Your task to perform on an android device: Is it going to rain today? Image 0: 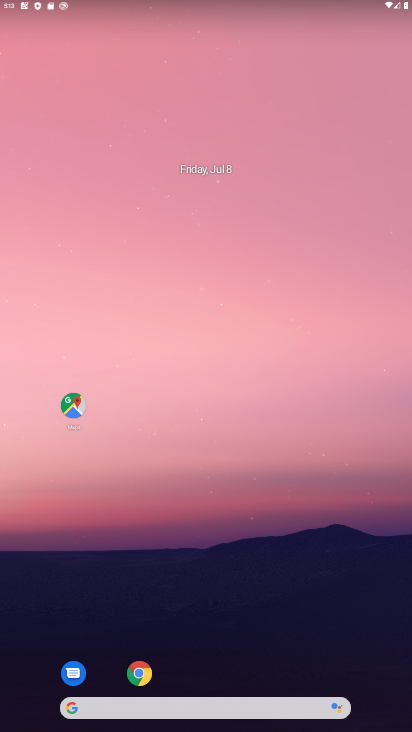
Step 0: drag from (152, 393) to (182, 93)
Your task to perform on an android device: Is it going to rain today? Image 1: 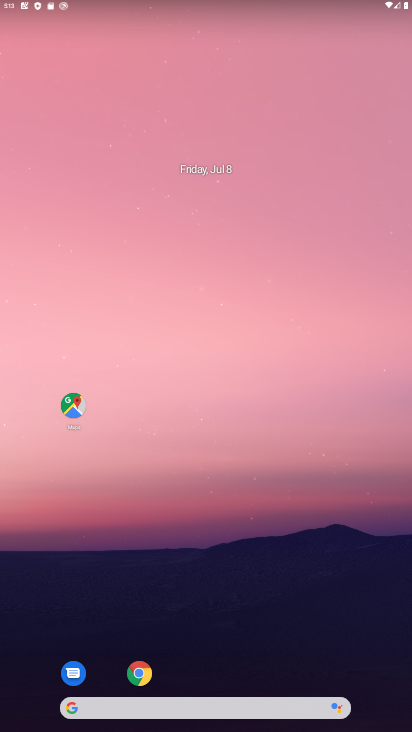
Step 1: drag from (176, 448) to (61, 479)
Your task to perform on an android device: Is it going to rain today? Image 2: 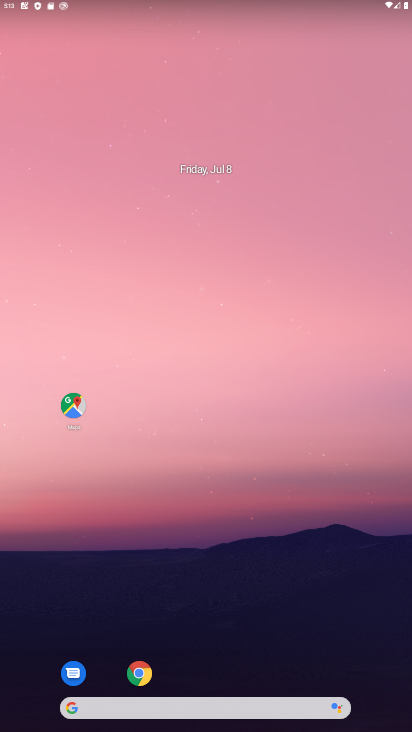
Step 2: drag from (178, 58) to (157, 16)
Your task to perform on an android device: Is it going to rain today? Image 3: 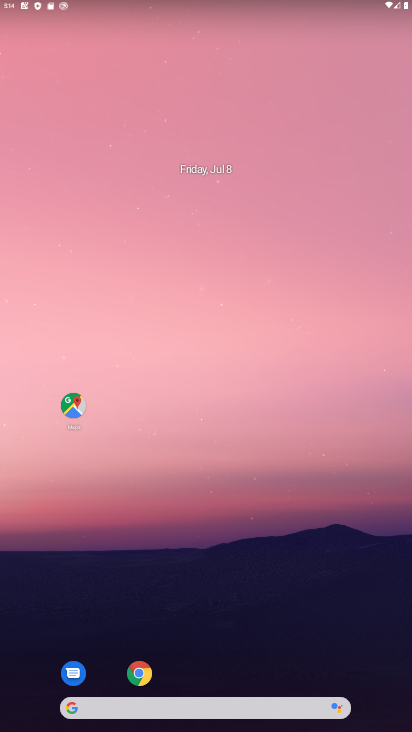
Step 3: drag from (211, 320) to (92, 100)
Your task to perform on an android device: Is it going to rain today? Image 4: 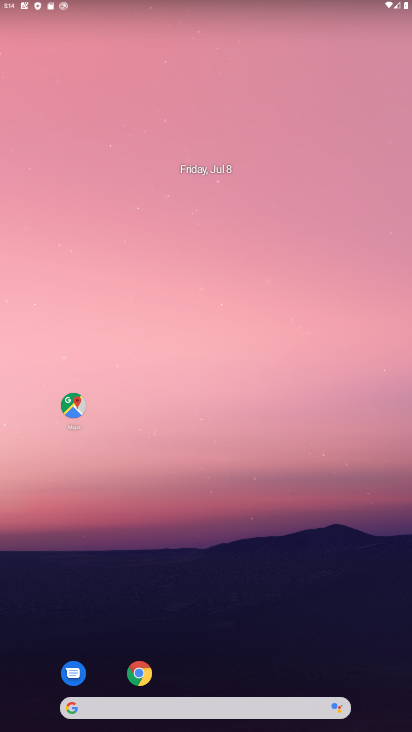
Step 4: drag from (216, 658) to (202, 178)
Your task to perform on an android device: Is it going to rain today? Image 5: 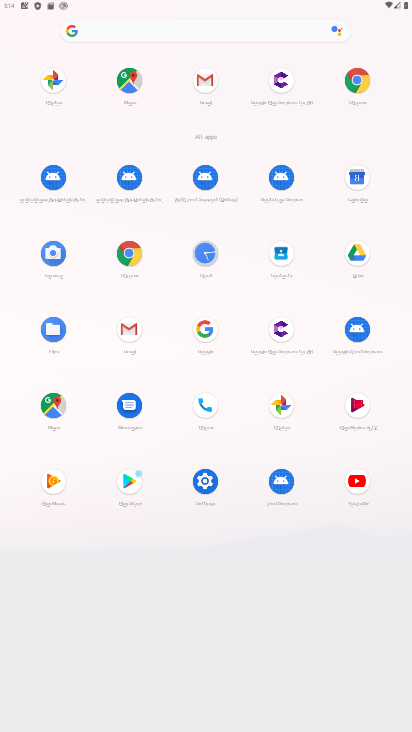
Step 5: click (205, 330)
Your task to perform on an android device: Is it going to rain today? Image 6: 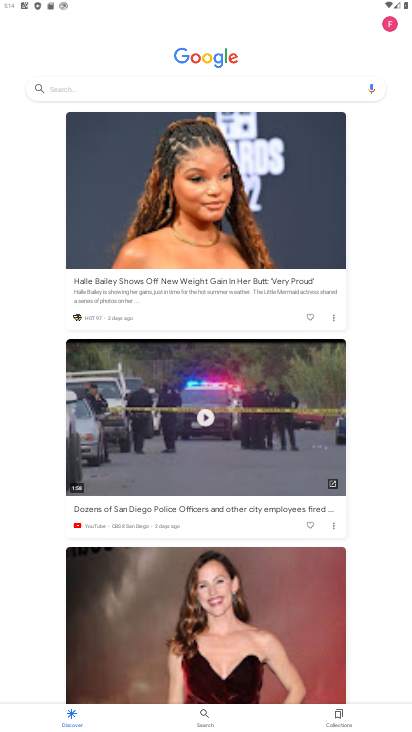
Step 6: click (183, 82)
Your task to perform on an android device: Is it going to rain today? Image 7: 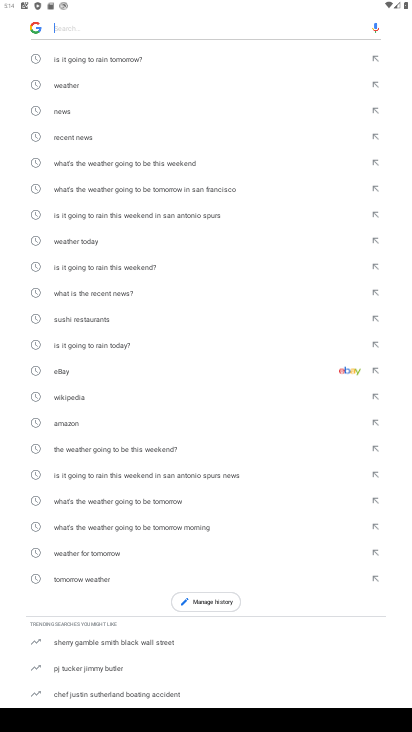
Step 7: click (75, 88)
Your task to perform on an android device: Is it going to rain today? Image 8: 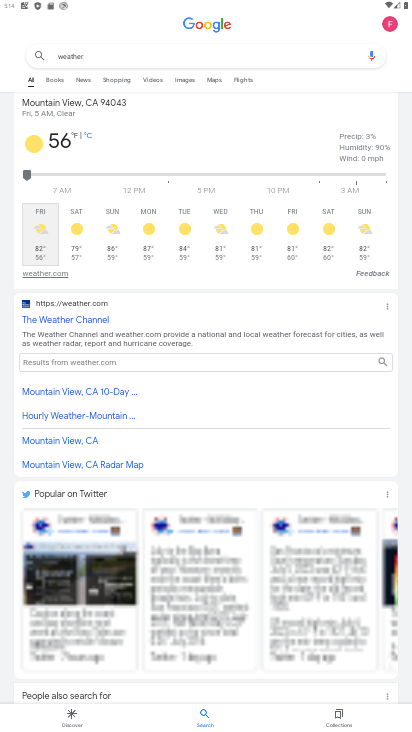
Step 8: task complete